Your task to perform on an android device: toggle javascript in the chrome app Image 0: 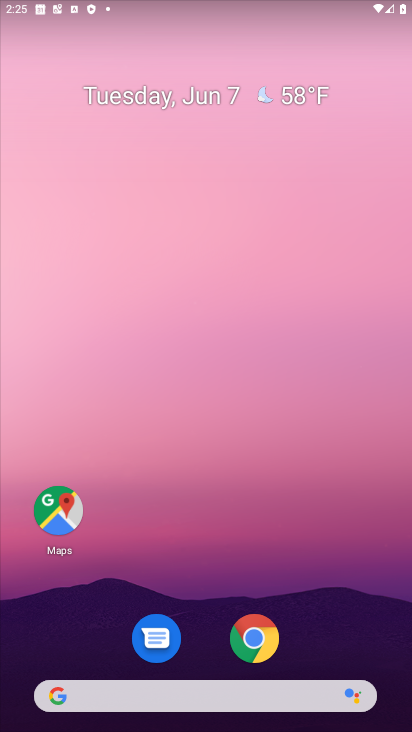
Step 0: drag from (220, 620) to (273, 255)
Your task to perform on an android device: toggle javascript in the chrome app Image 1: 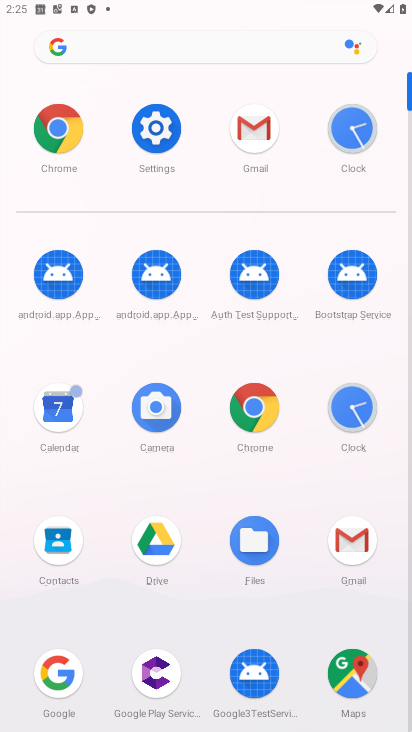
Step 1: click (160, 125)
Your task to perform on an android device: toggle javascript in the chrome app Image 2: 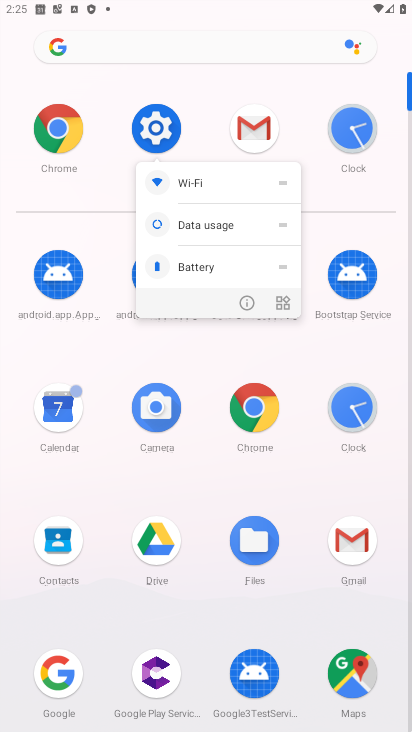
Step 2: click (71, 360)
Your task to perform on an android device: toggle javascript in the chrome app Image 3: 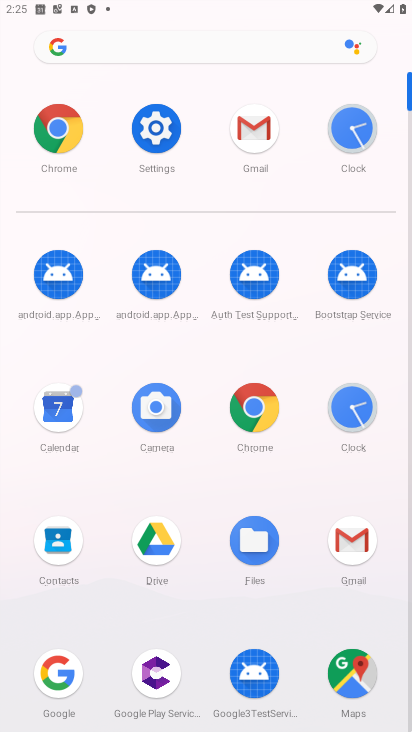
Step 3: click (253, 392)
Your task to perform on an android device: toggle javascript in the chrome app Image 4: 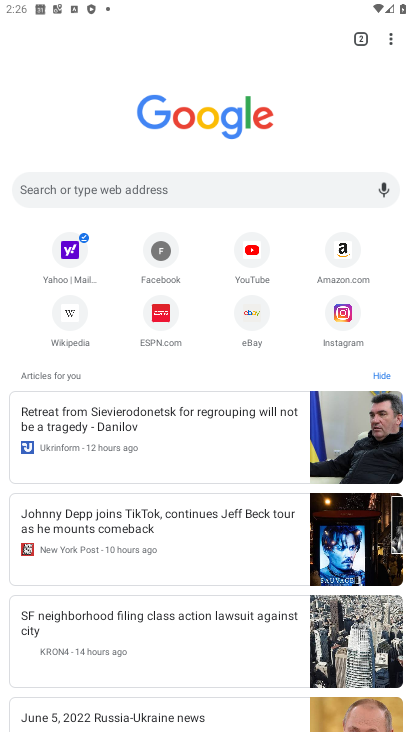
Step 4: click (392, 33)
Your task to perform on an android device: toggle javascript in the chrome app Image 5: 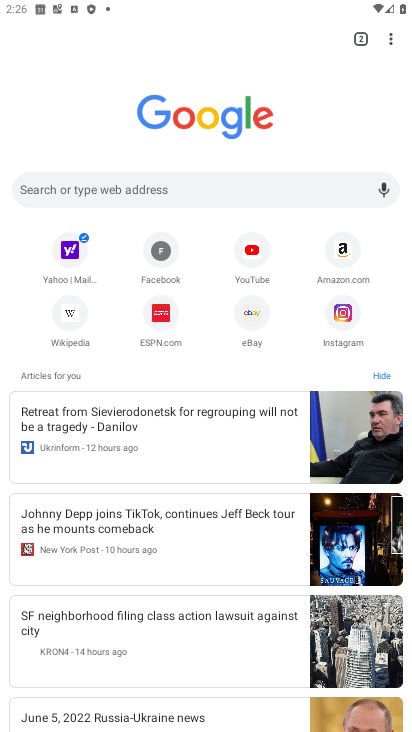
Step 5: click (394, 43)
Your task to perform on an android device: toggle javascript in the chrome app Image 6: 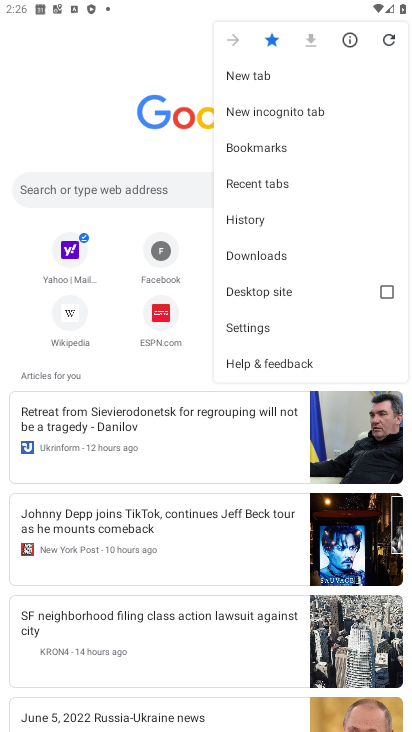
Step 6: click (261, 321)
Your task to perform on an android device: toggle javascript in the chrome app Image 7: 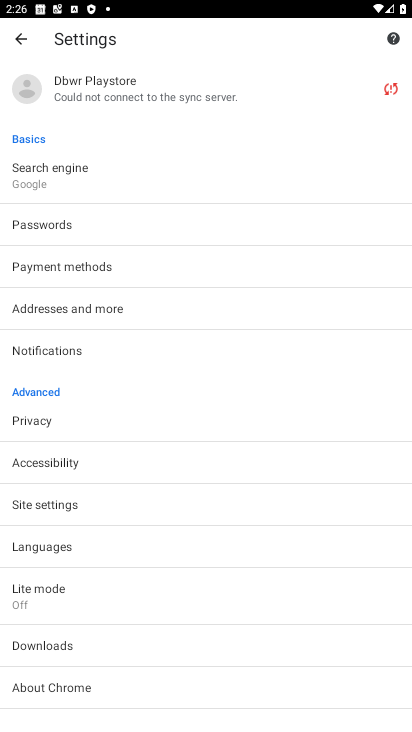
Step 7: drag from (138, 411) to (176, 321)
Your task to perform on an android device: toggle javascript in the chrome app Image 8: 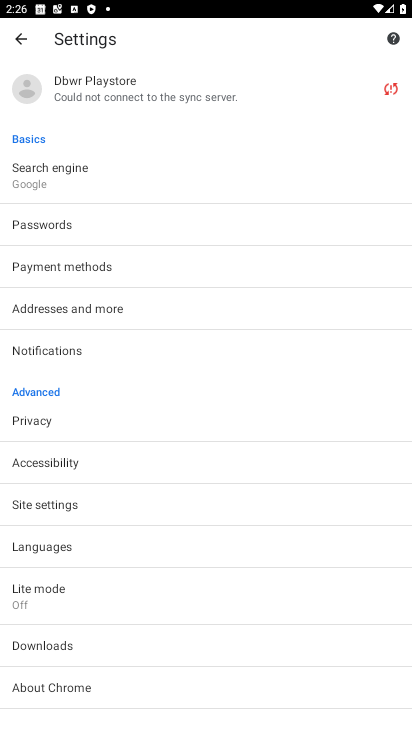
Step 8: click (74, 500)
Your task to perform on an android device: toggle javascript in the chrome app Image 9: 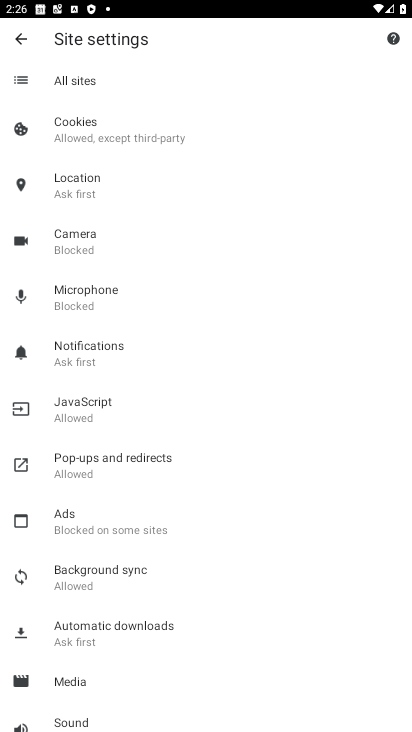
Step 9: click (102, 407)
Your task to perform on an android device: toggle javascript in the chrome app Image 10: 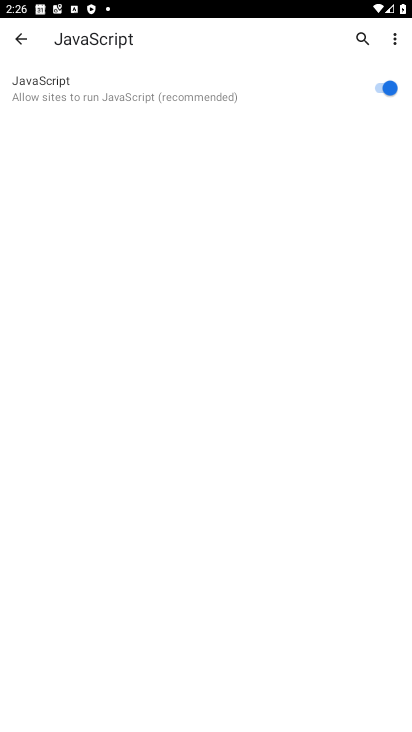
Step 10: click (382, 93)
Your task to perform on an android device: toggle javascript in the chrome app Image 11: 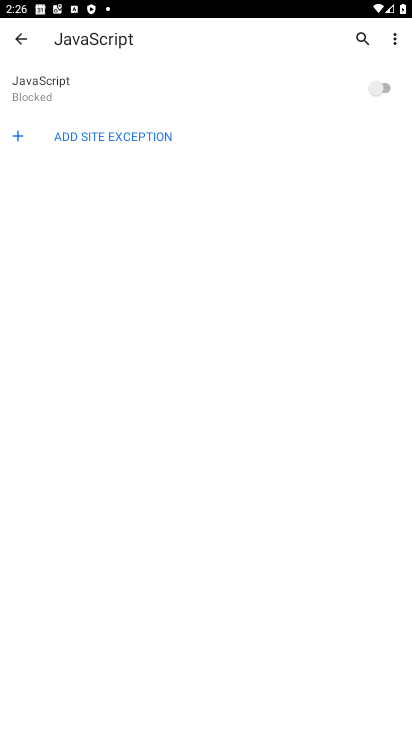
Step 11: task complete